Your task to perform on an android device: Open the phone app and click the voicemail tab. Image 0: 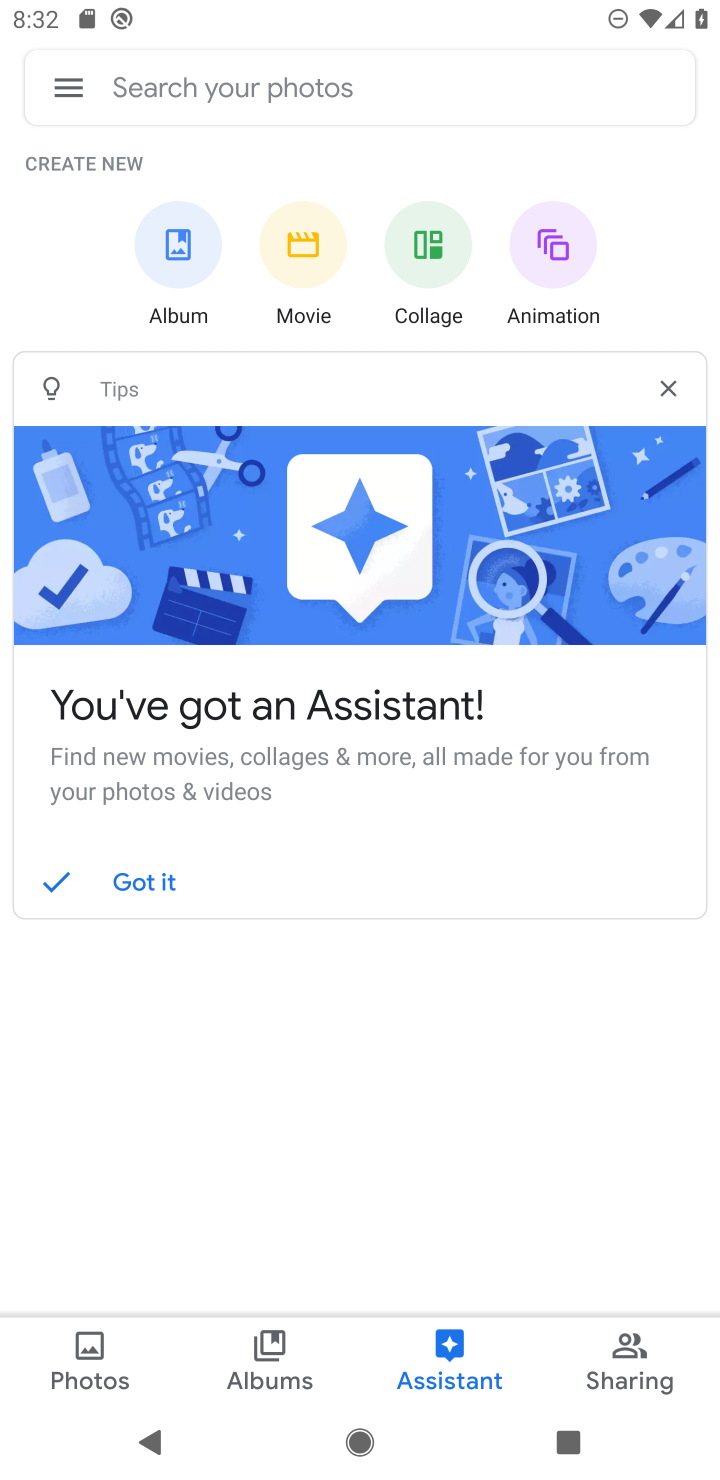
Step 0: press home button
Your task to perform on an android device: Open the phone app and click the voicemail tab. Image 1: 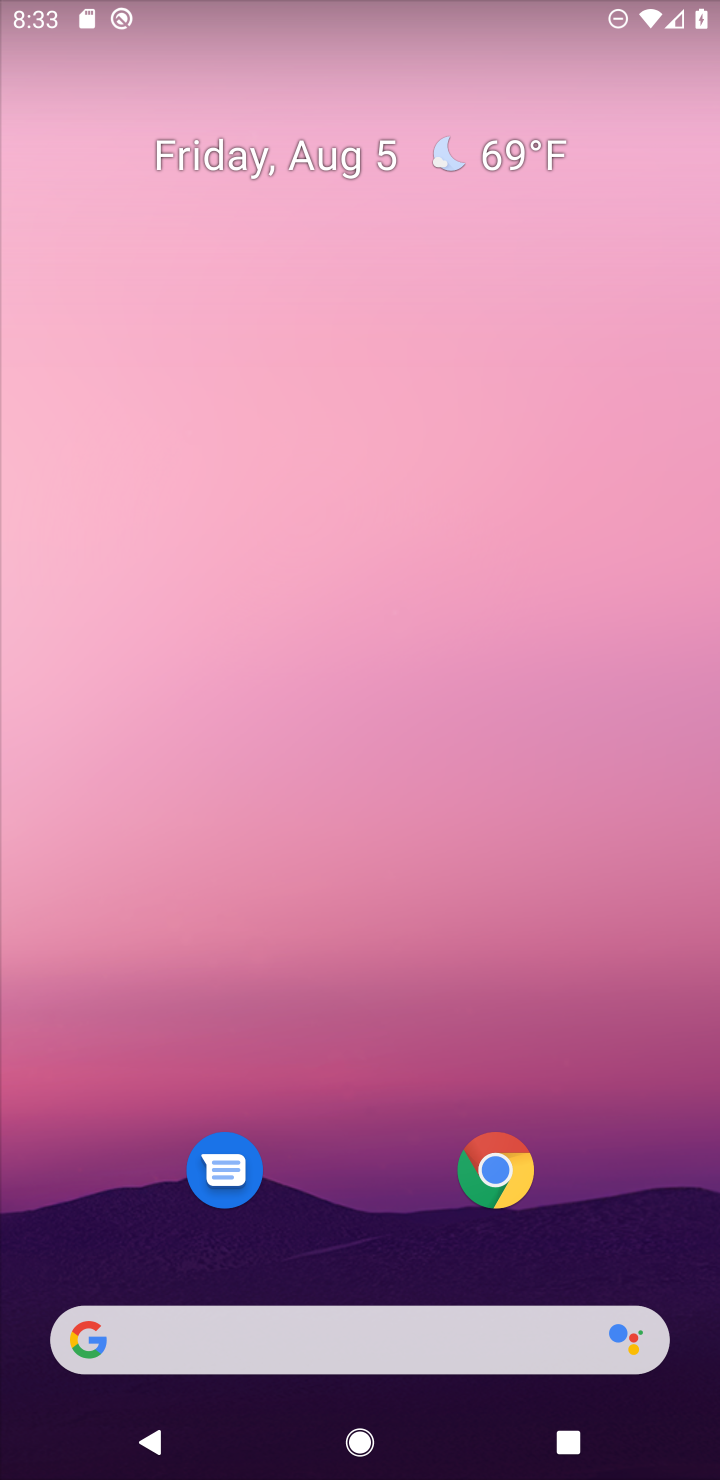
Step 1: drag from (646, 1228) to (600, 170)
Your task to perform on an android device: Open the phone app and click the voicemail tab. Image 2: 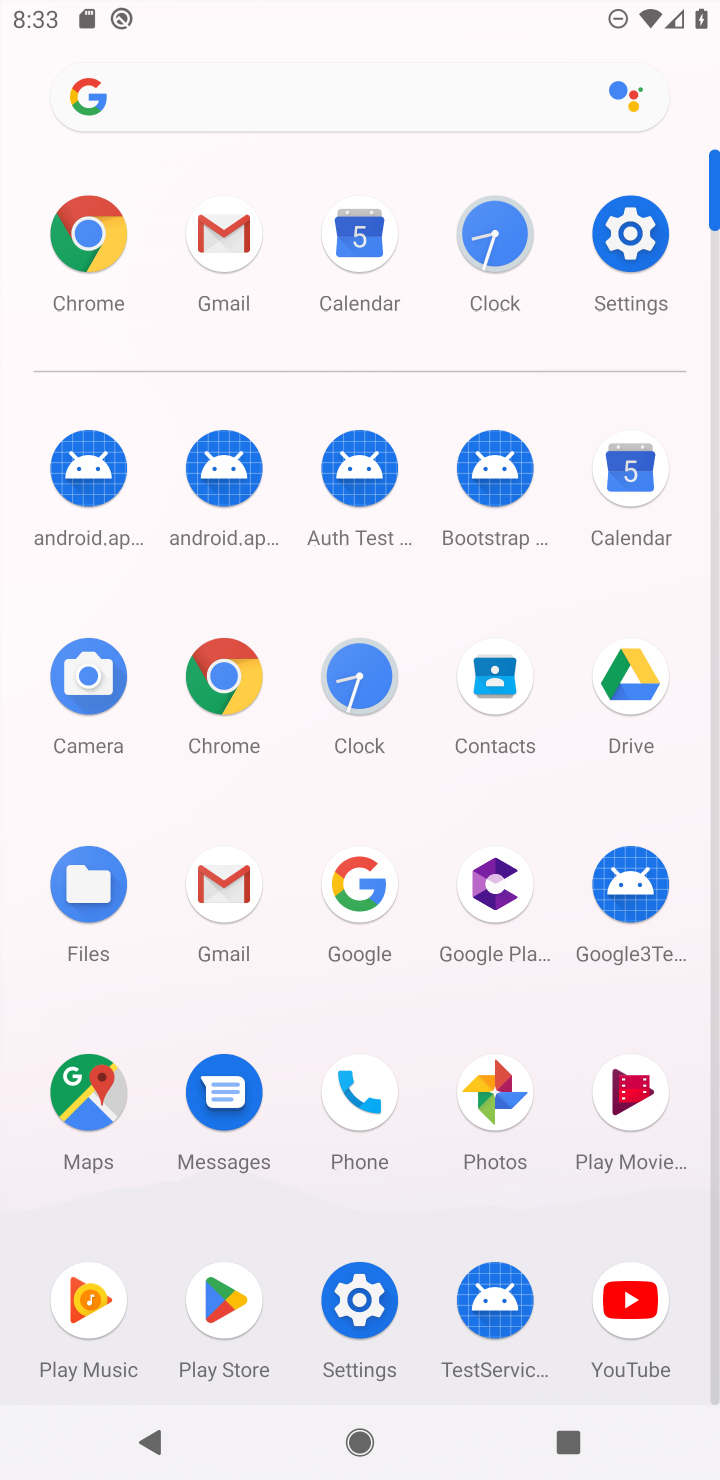
Step 2: click (358, 1094)
Your task to perform on an android device: Open the phone app and click the voicemail tab. Image 3: 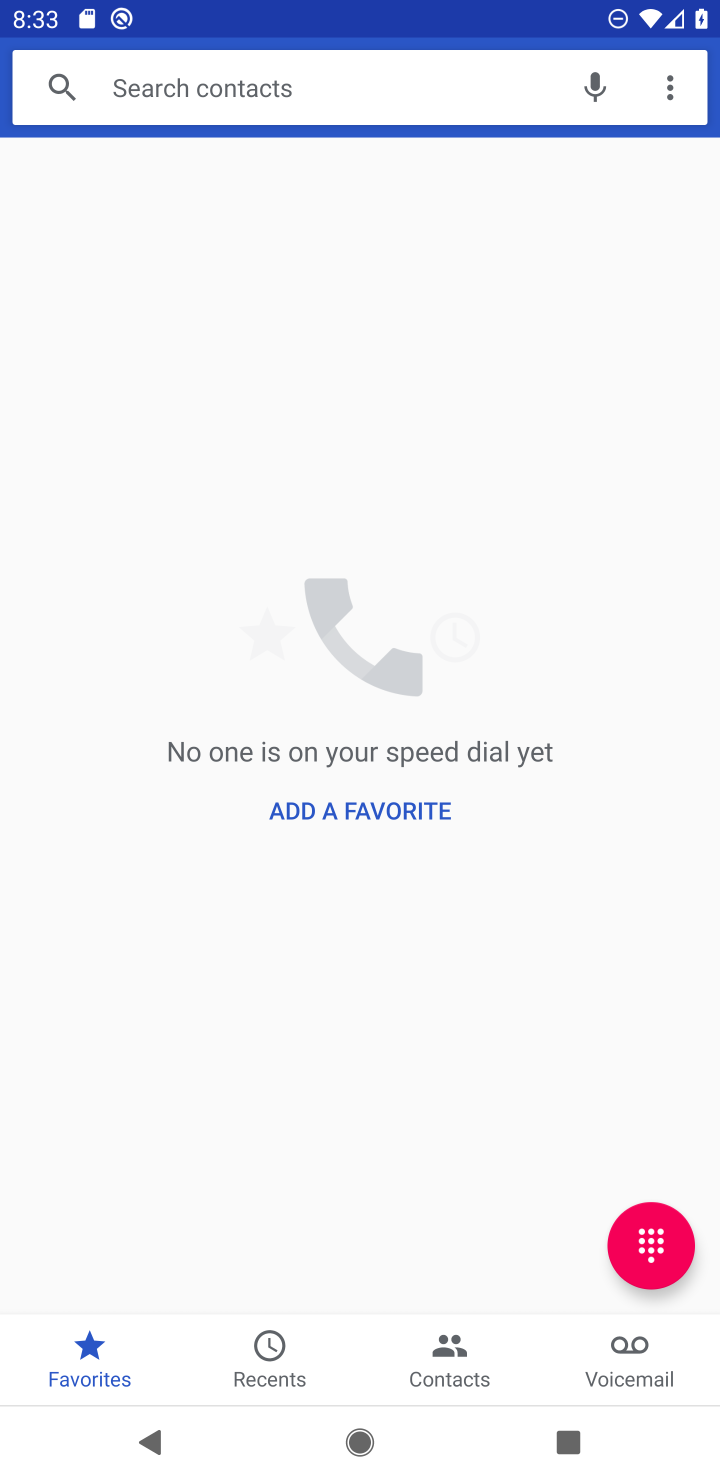
Step 3: click (637, 1364)
Your task to perform on an android device: Open the phone app and click the voicemail tab. Image 4: 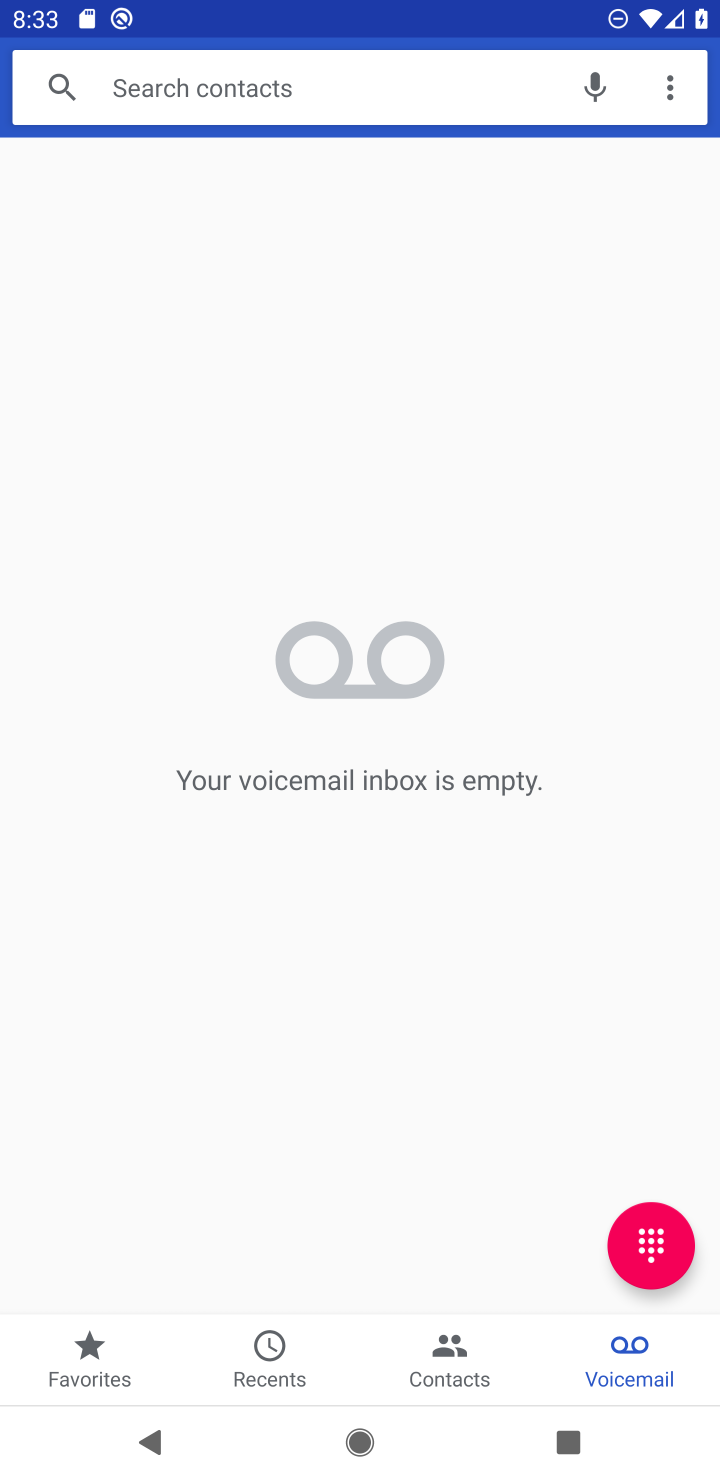
Step 4: task complete